Your task to perform on an android device: add a contact in the contacts app Image 0: 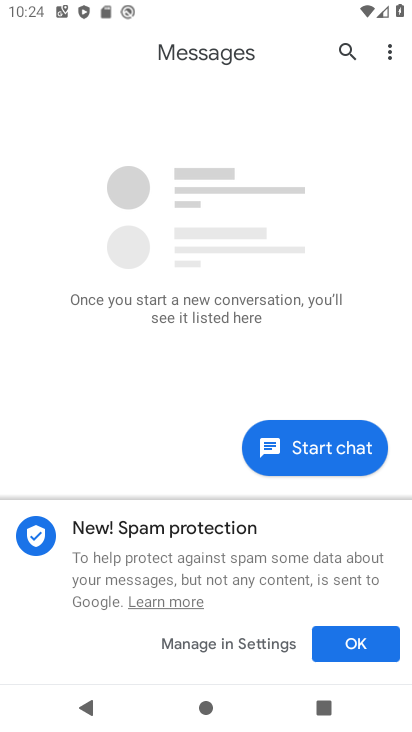
Step 0: press home button
Your task to perform on an android device: add a contact in the contacts app Image 1: 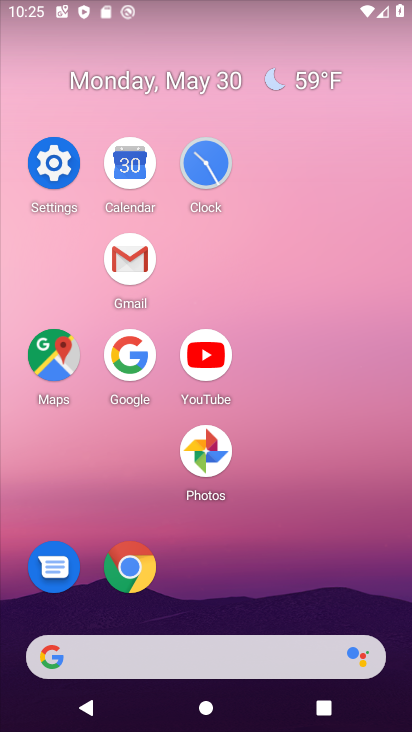
Step 1: drag from (271, 576) to (349, 101)
Your task to perform on an android device: add a contact in the contacts app Image 2: 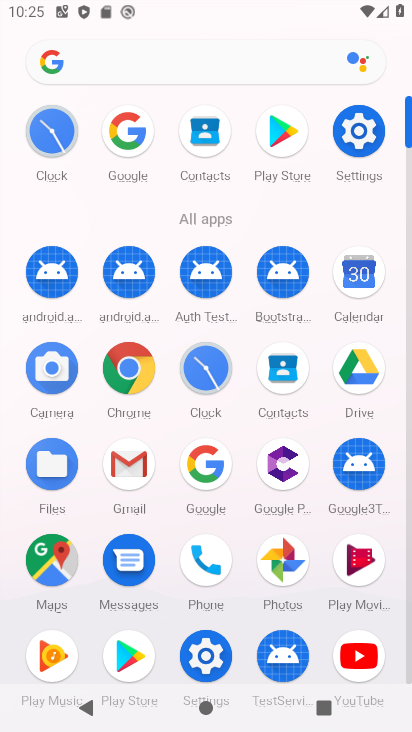
Step 2: click (291, 377)
Your task to perform on an android device: add a contact in the contacts app Image 3: 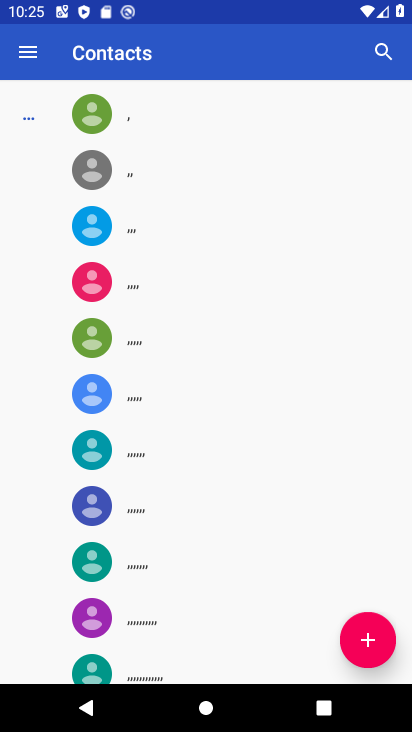
Step 3: click (384, 673)
Your task to perform on an android device: add a contact in the contacts app Image 4: 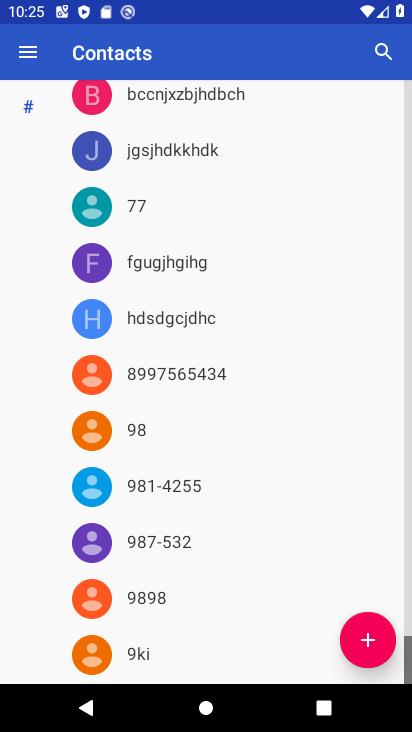
Step 4: click (364, 643)
Your task to perform on an android device: add a contact in the contacts app Image 5: 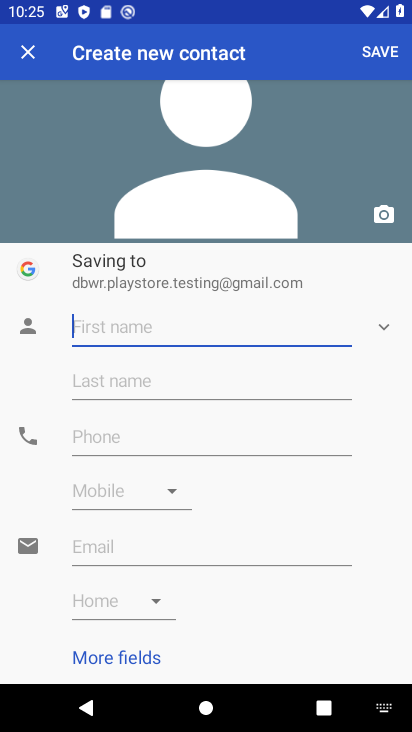
Step 5: type "yyvv"
Your task to perform on an android device: add a contact in the contacts app Image 6: 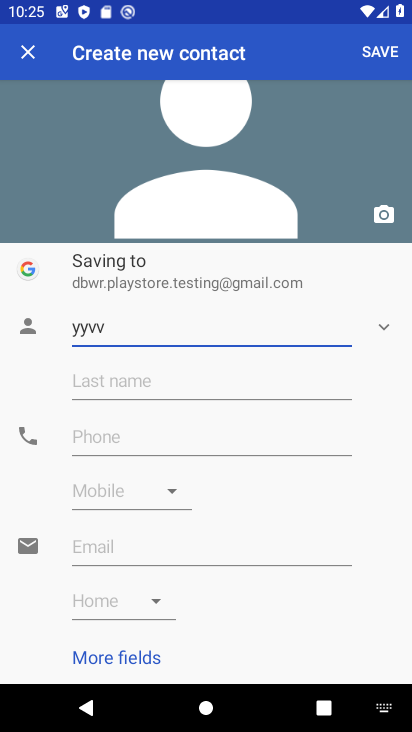
Step 6: click (202, 437)
Your task to perform on an android device: add a contact in the contacts app Image 7: 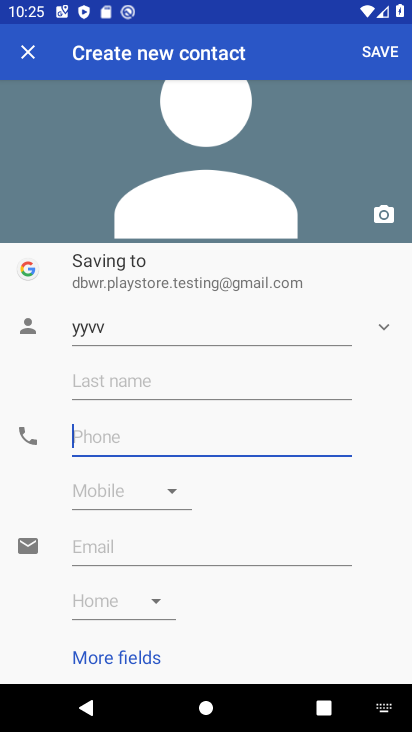
Step 7: type "8877665543"
Your task to perform on an android device: add a contact in the contacts app Image 8: 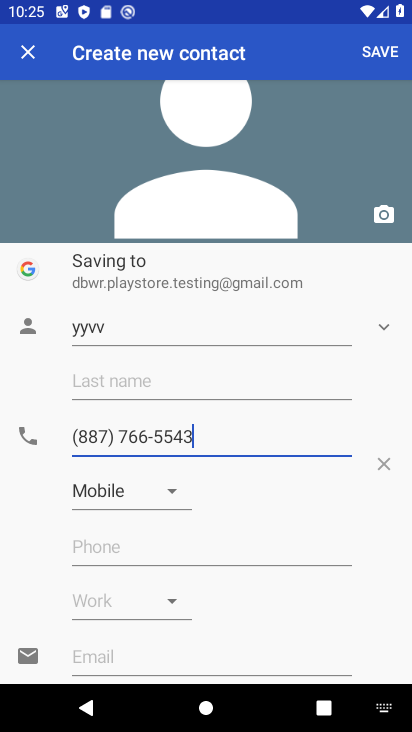
Step 8: click (387, 56)
Your task to perform on an android device: add a contact in the contacts app Image 9: 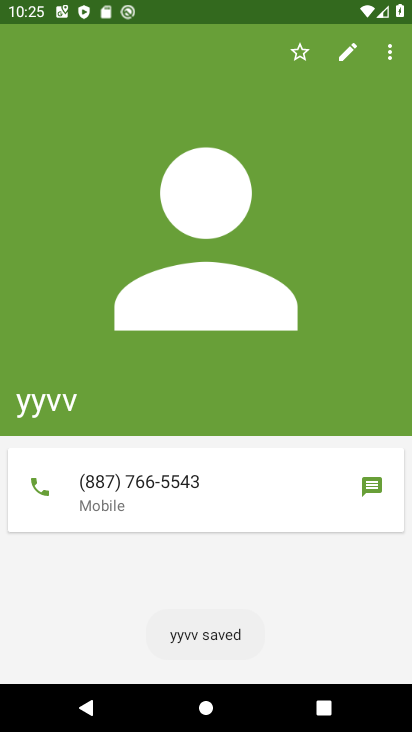
Step 9: task complete